Your task to perform on an android device: turn on the 12-hour format for clock Image 0: 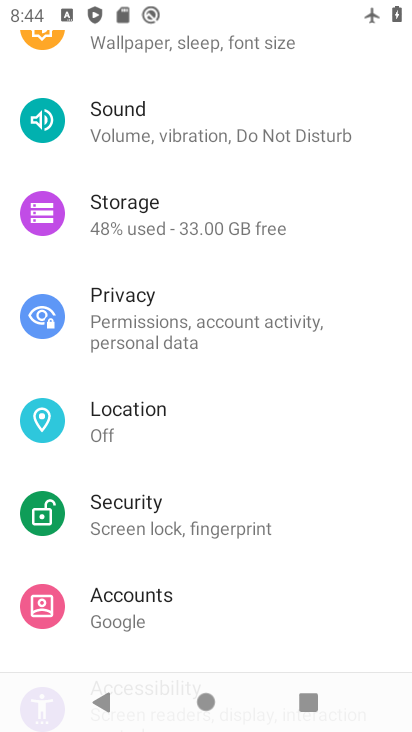
Step 0: press home button
Your task to perform on an android device: turn on the 12-hour format for clock Image 1: 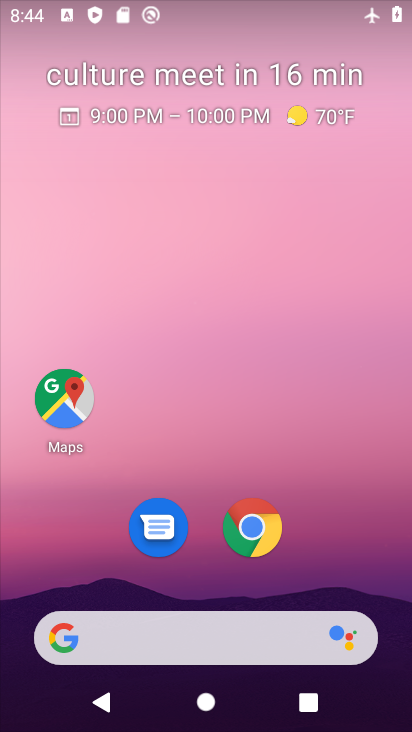
Step 1: drag from (223, 593) to (226, 225)
Your task to perform on an android device: turn on the 12-hour format for clock Image 2: 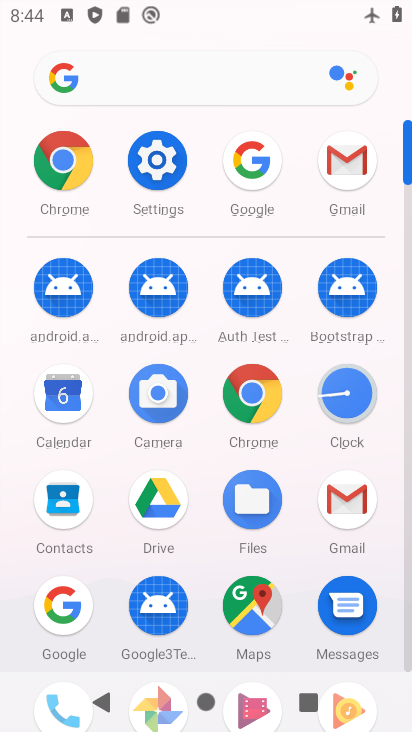
Step 2: click (361, 402)
Your task to perform on an android device: turn on the 12-hour format for clock Image 3: 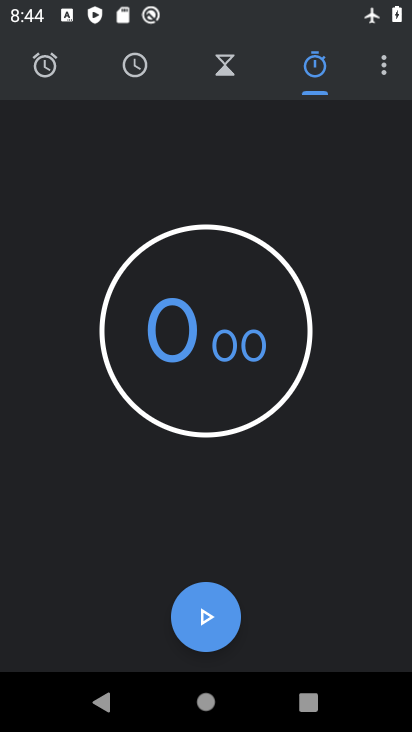
Step 3: click (394, 61)
Your task to perform on an android device: turn on the 12-hour format for clock Image 4: 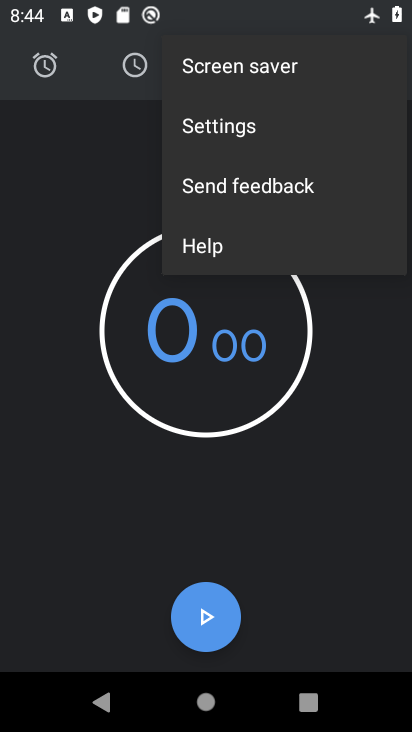
Step 4: click (256, 132)
Your task to perform on an android device: turn on the 12-hour format for clock Image 5: 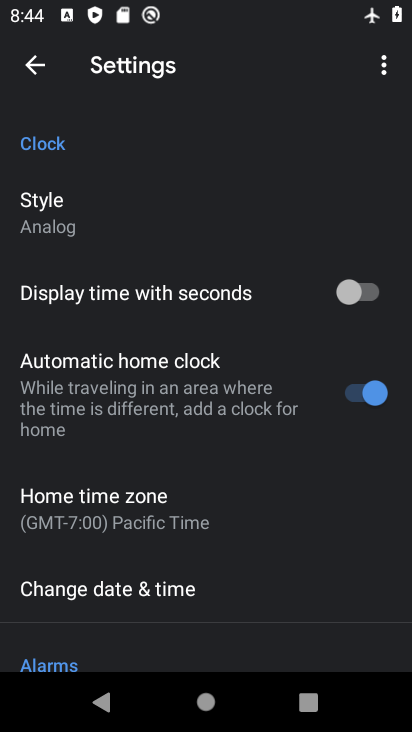
Step 5: click (136, 593)
Your task to perform on an android device: turn on the 12-hour format for clock Image 6: 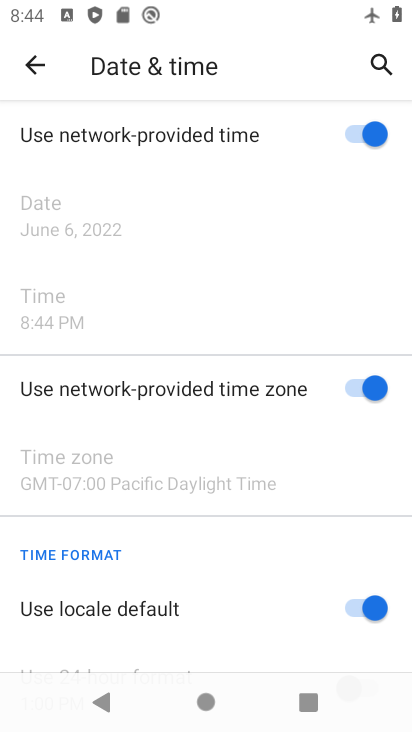
Step 6: task complete